Your task to perform on an android device: Show me productivity apps on the Play Store Image 0: 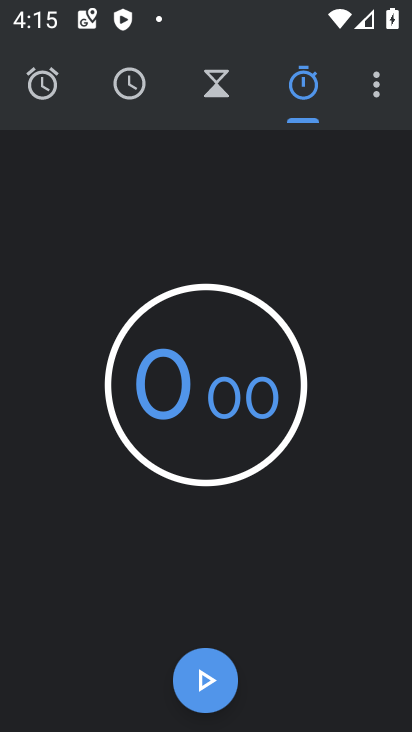
Step 0: press back button
Your task to perform on an android device: Show me productivity apps on the Play Store Image 1: 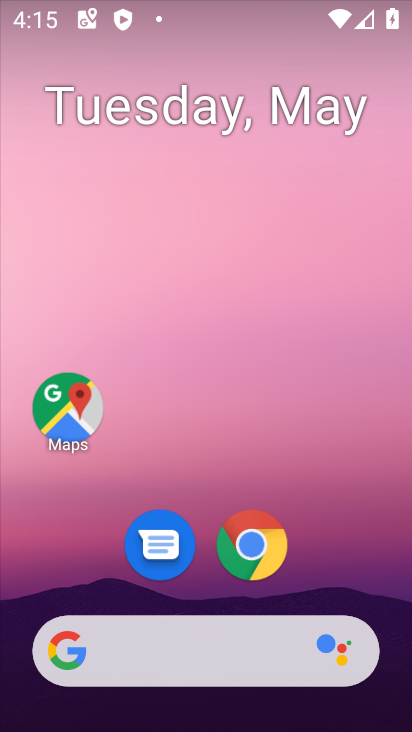
Step 1: drag from (323, 454) to (266, 6)
Your task to perform on an android device: Show me productivity apps on the Play Store Image 2: 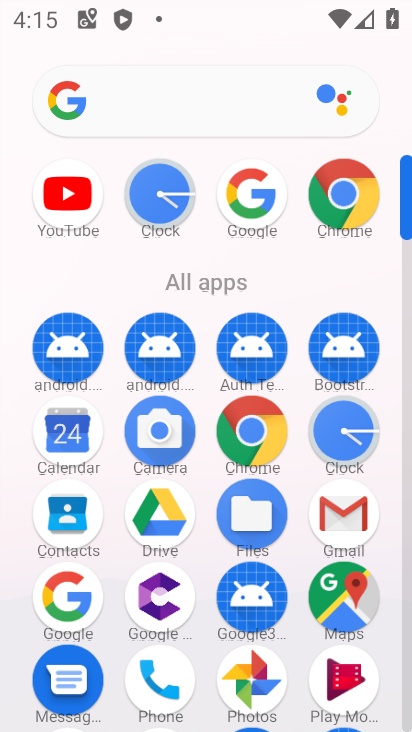
Step 2: drag from (208, 563) to (193, 253)
Your task to perform on an android device: Show me productivity apps on the Play Store Image 3: 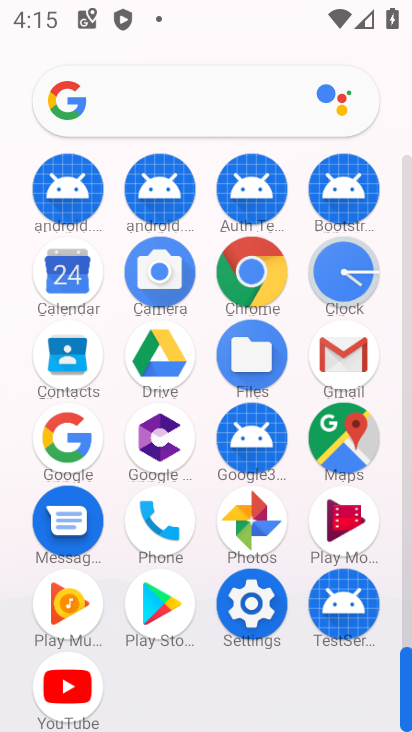
Step 3: click (157, 600)
Your task to perform on an android device: Show me productivity apps on the Play Store Image 4: 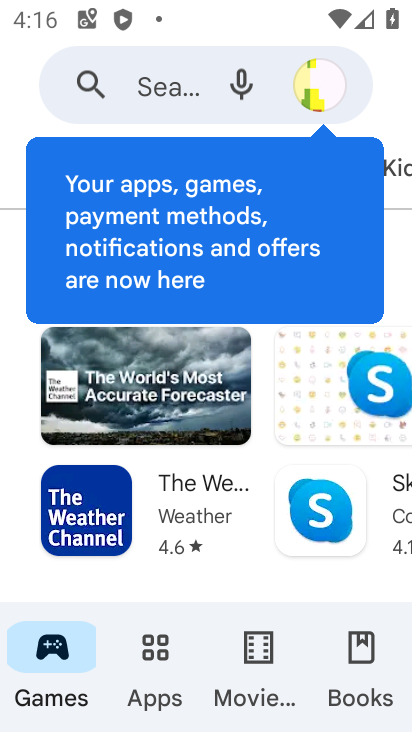
Step 4: click (157, 662)
Your task to perform on an android device: Show me productivity apps on the Play Store Image 5: 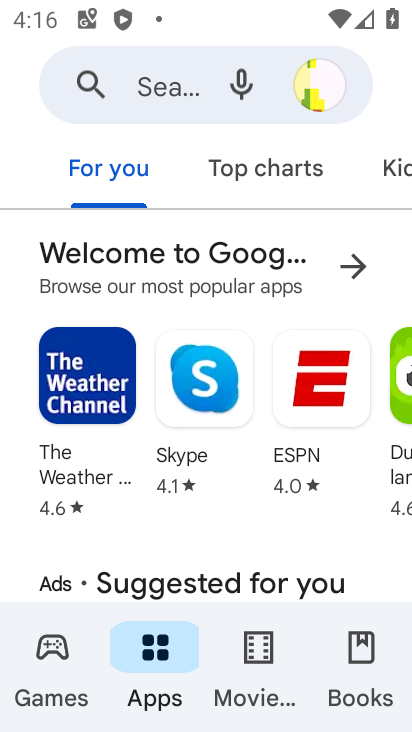
Step 5: drag from (366, 174) to (59, 181)
Your task to perform on an android device: Show me productivity apps on the Play Store Image 6: 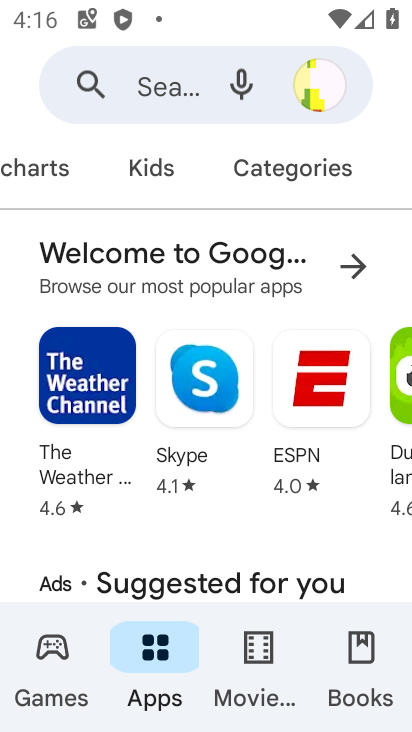
Step 6: click (291, 165)
Your task to perform on an android device: Show me productivity apps on the Play Store Image 7: 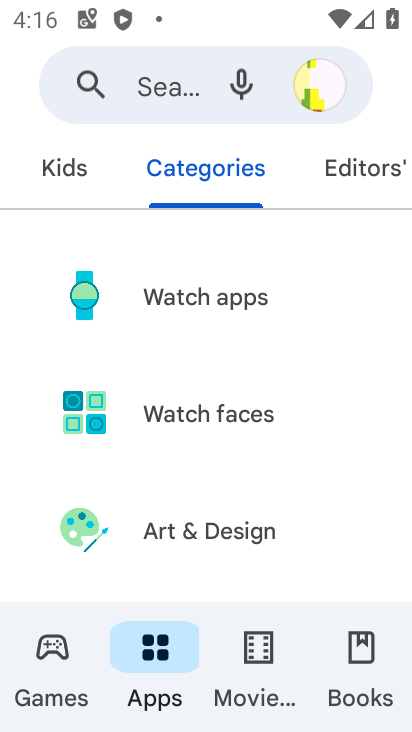
Step 7: drag from (216, 364) to (268, 242)
Your task to perform on an android device: Show me productivity apps on the Play Store Image 8: 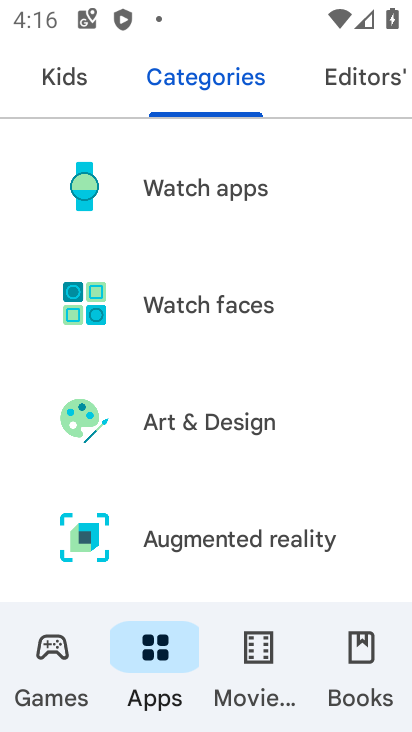
Step 8: drag from (204, 486) to (246, 92)
Your task to perform on an android device: Show me productivity apps on the Play Store Image 9: 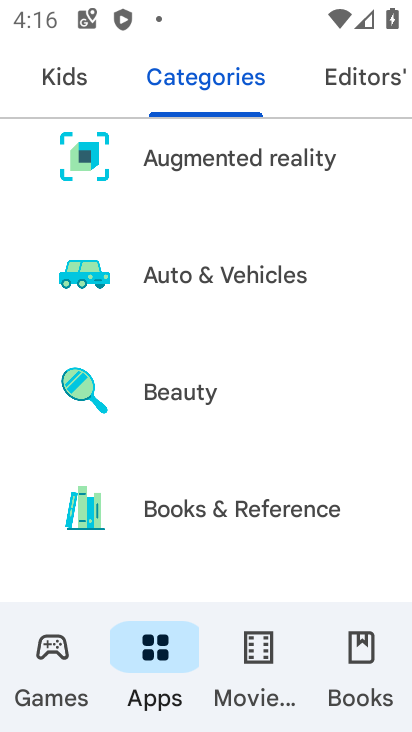
Step 9: drag from (214, 471) to (315, 187)
Your task to perform on an android device: Show me productivity apps on the Play Store Image 10: 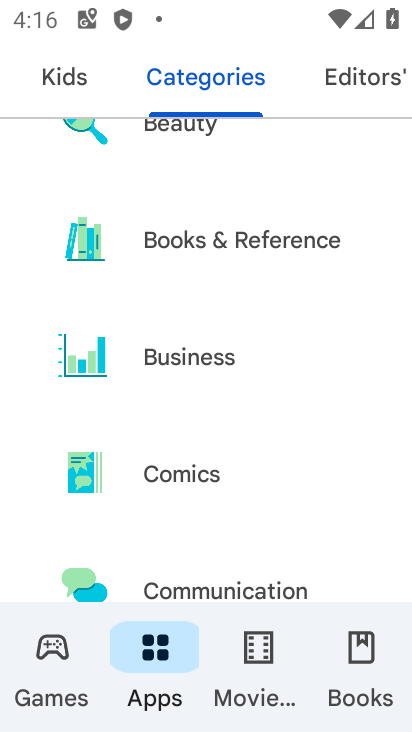
Step 10: drag from (186, 439) to (295, 122)
Your task to perform on an android device: Show me productivity apps on the Play Store Image 11: 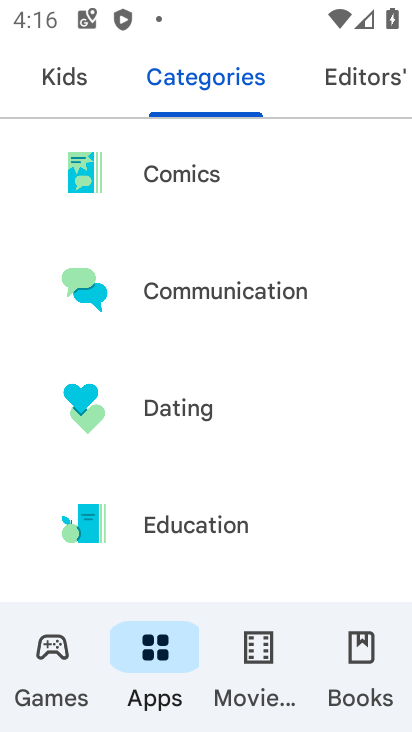
Step 11: drag from (195, 478) to (273, 135)
Your task to perform on an android device: Show me productivity apps on the Play Store Image 12: 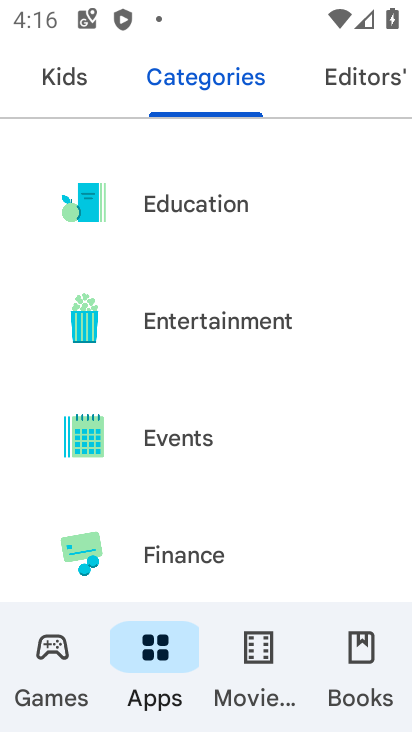
Step 12: drag from (188, 510) to (295, 236)
Your task to perform on an android device: Show me productivity apps on the Play Store Image 13: 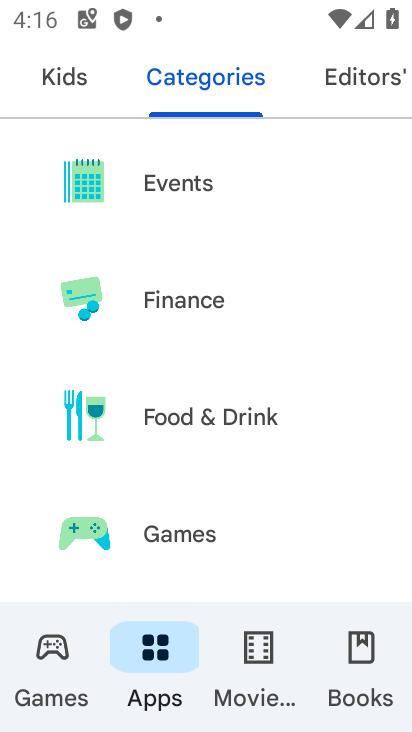
Step 13: drag from (206, 475) to (299, 205)
Your task to perform on an android device: Show me productivity apps on the Play Store Image 14: 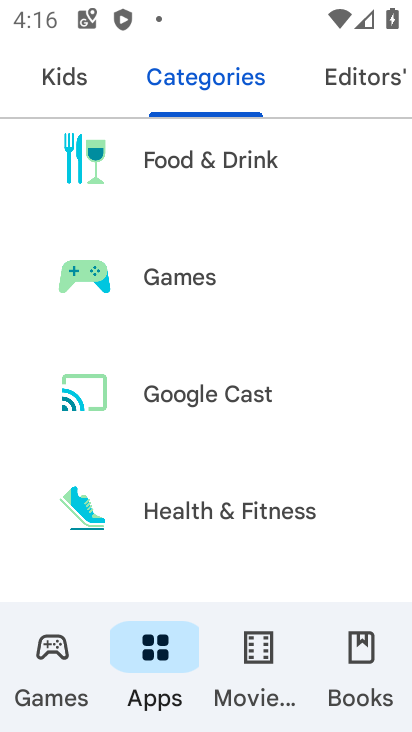
Step 14: drag from (207, 464) to (287, 253)
Your task to perform on an android device: Show me productivity apps on the Play Store Image 15: 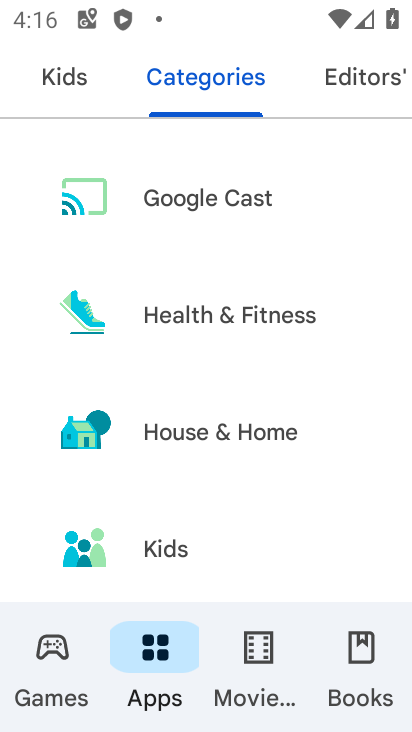
Step 15: drag from (196, 392) to (295, 147)
Your task to perform on an android device: Show me productivity apps on the Play Store Image 16: 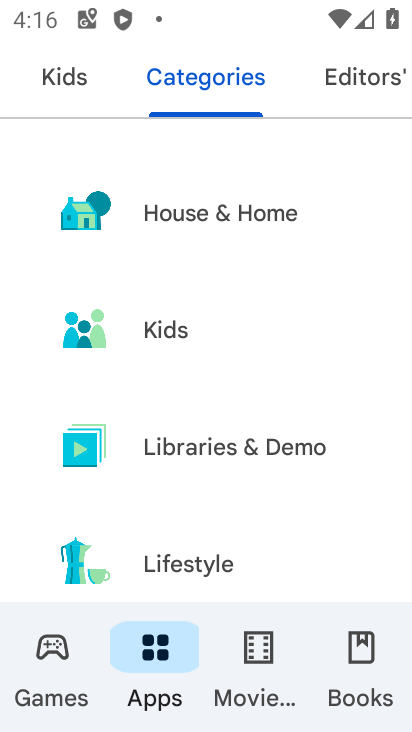
Step 16: drag from (167, 412) to (278, 167)
Your task to perform on an android device: Show me productivity apps on the Play Store Image 17: 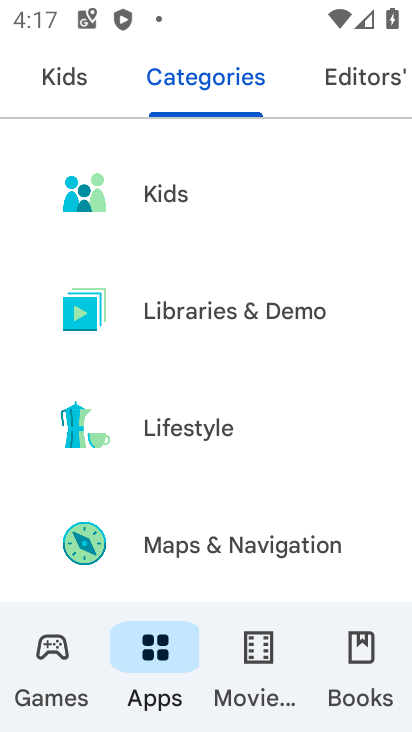
Step 17: drag from (192, 385) to (276, 150)
Your task to perform on an android device: Show me productivity apps on the Play Store Image 18: 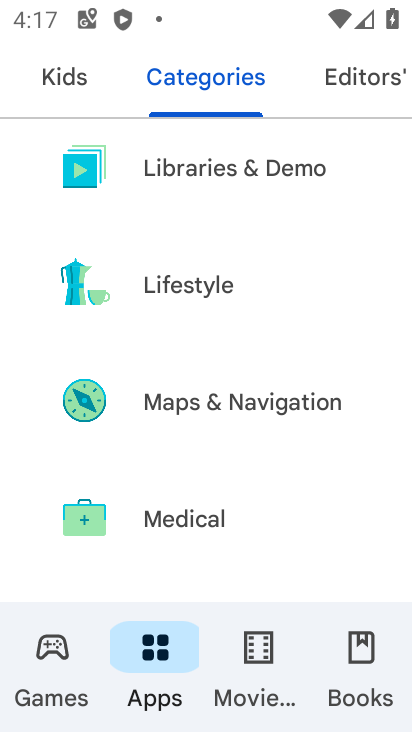
Step 18: drag from (168, 471) to (245, 138)
Your task to perform on an android device: Show me productivity apps on the Play Store Image 19: 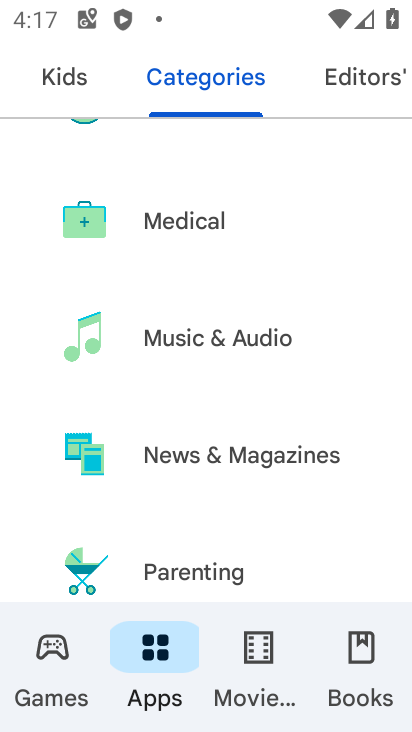
Step 19: drag from (167, 519) to (345, 211)
Your task to perform on an android device: Show me productivity apps on the Play Store Image 20: 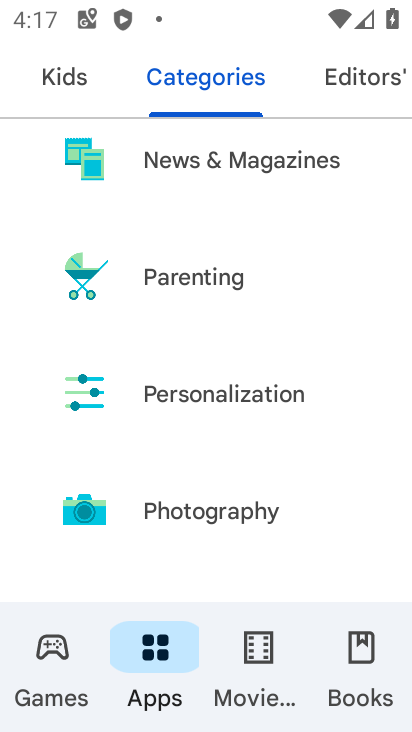
Step 20: drag from (202, 479) to (302, 279)
Your task to perform on an android device: Show me productivity apps on the Play Store Image 21: 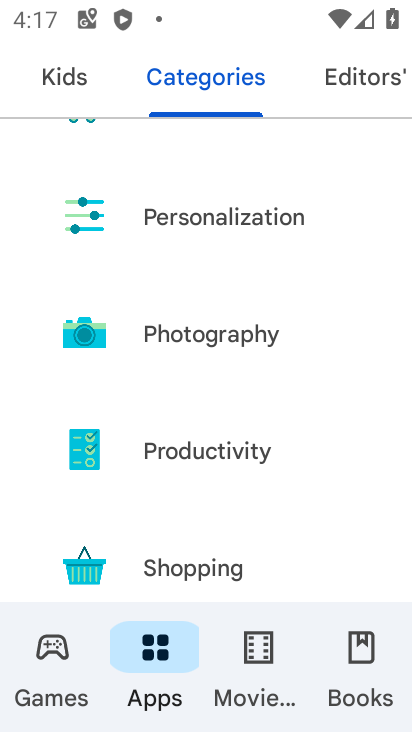
Step 21: click (229, 452)
Your task to perform on an android device: Show me productivity apps on the Play Store Image 22: 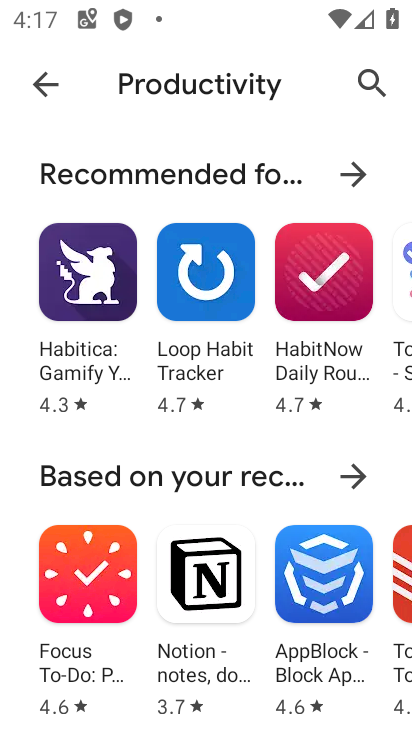
Step 22: task complete